Your task to perform on an android device: turn off location history Image 0: 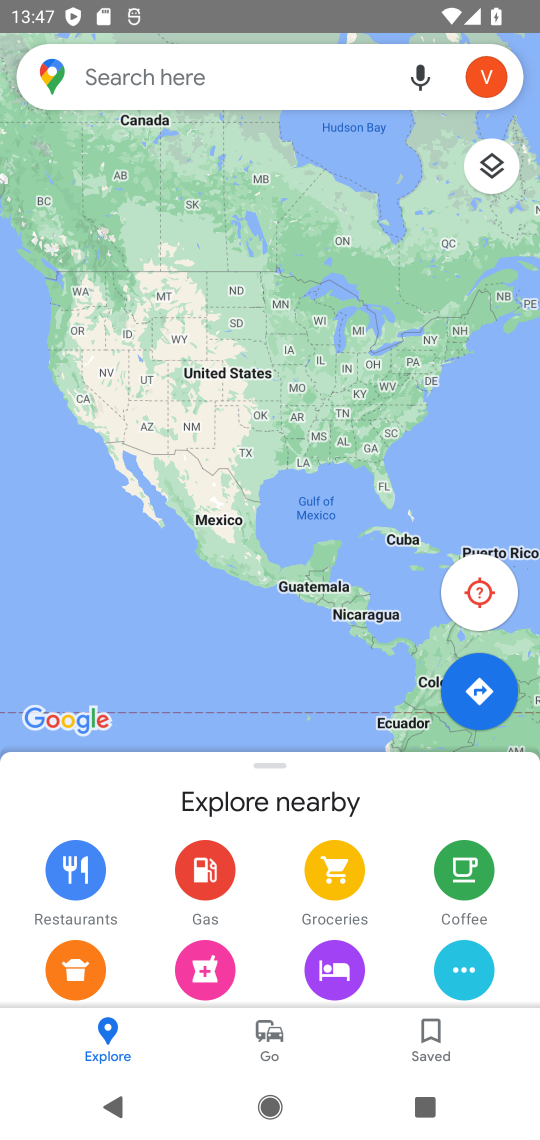
Step 0: press home button
Your task to perform on an android device: turn off location history Image 1: 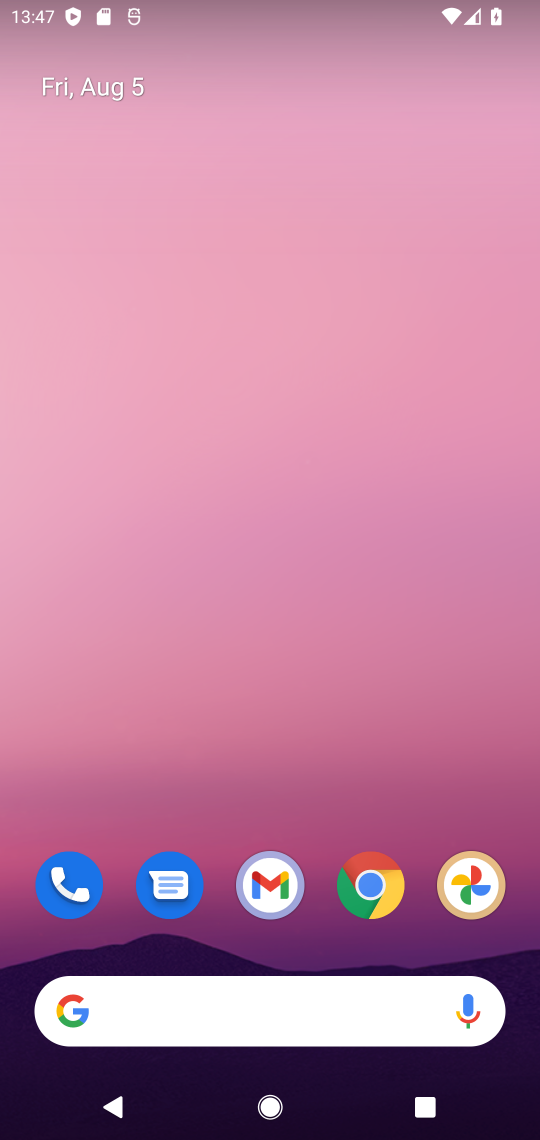
Step 1: drag from (267, 871) to (272, 253)
Your task to perform on an android device: turn off location history Image 2: 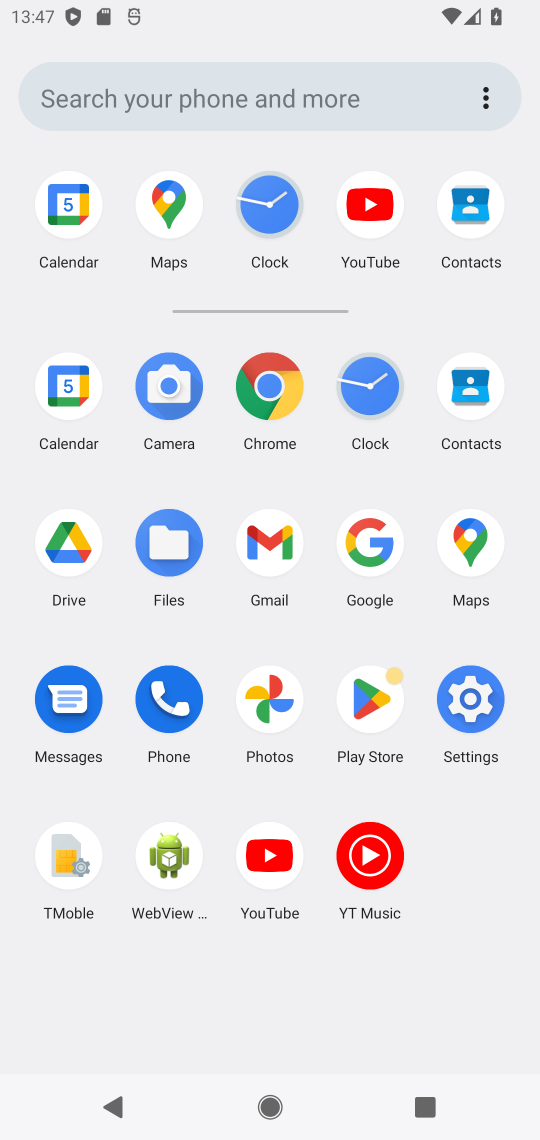
Step 2: click (459, 691)
Your task to perform on an android device: turn off location history Image 3: 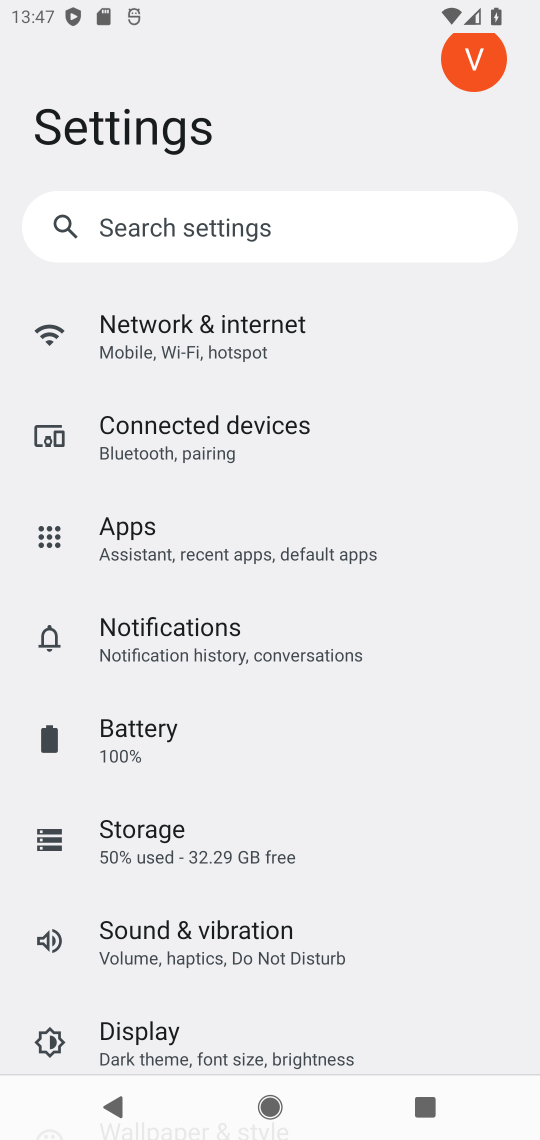
Step 3: drag from (196, 995) to (222, 583)
Your task to perform on an android device: turn off location history Image 4: 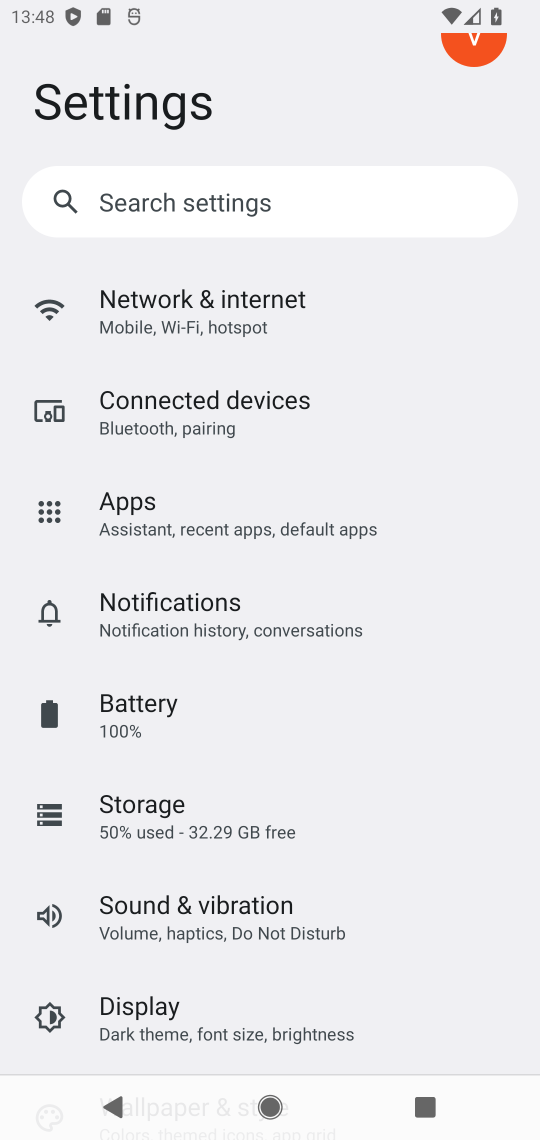
Step 4: drag from (233, 922) to (262, 514)
Your task to perform on an android device: turn off location history Image 5: 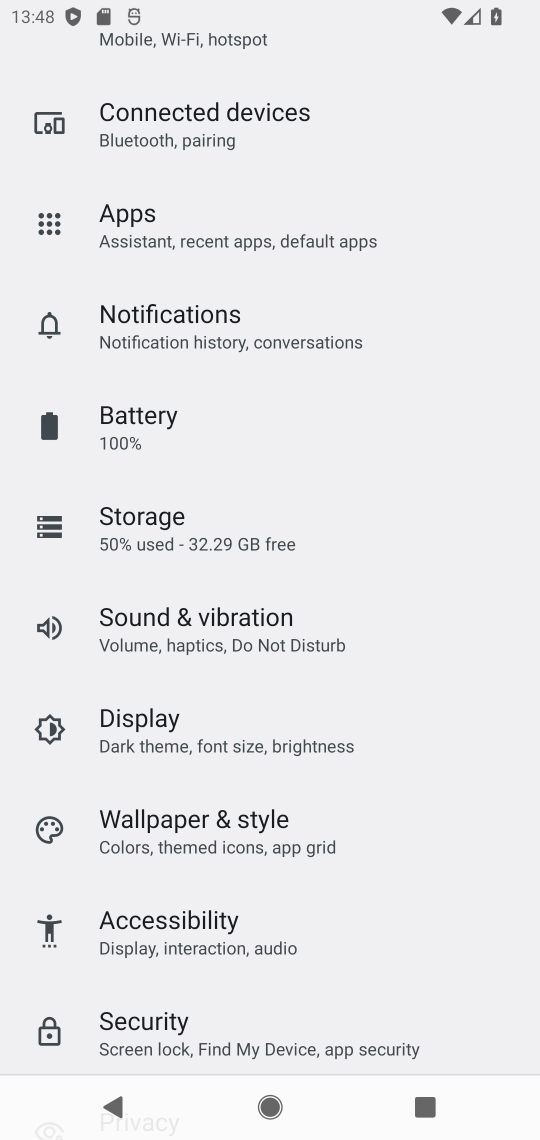
Step 5: drag from (239, 904) to (260, 609)
Your task to perform on an android device: turn off location history Image 6: 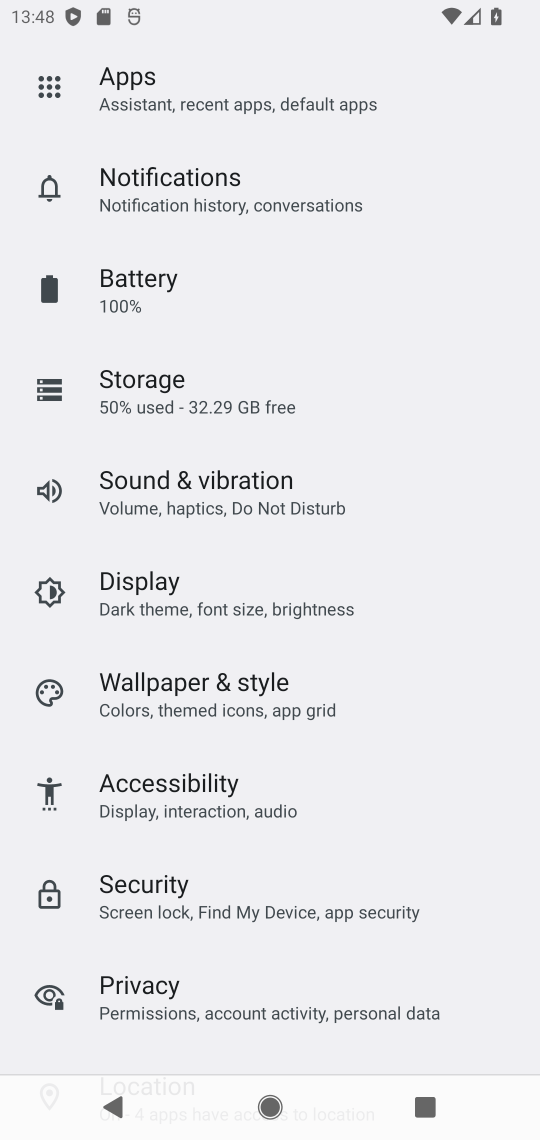
Step 6: drag from (229, 858) to (272, 298)
Your task to perform on an android device: turn off location history Image 7: 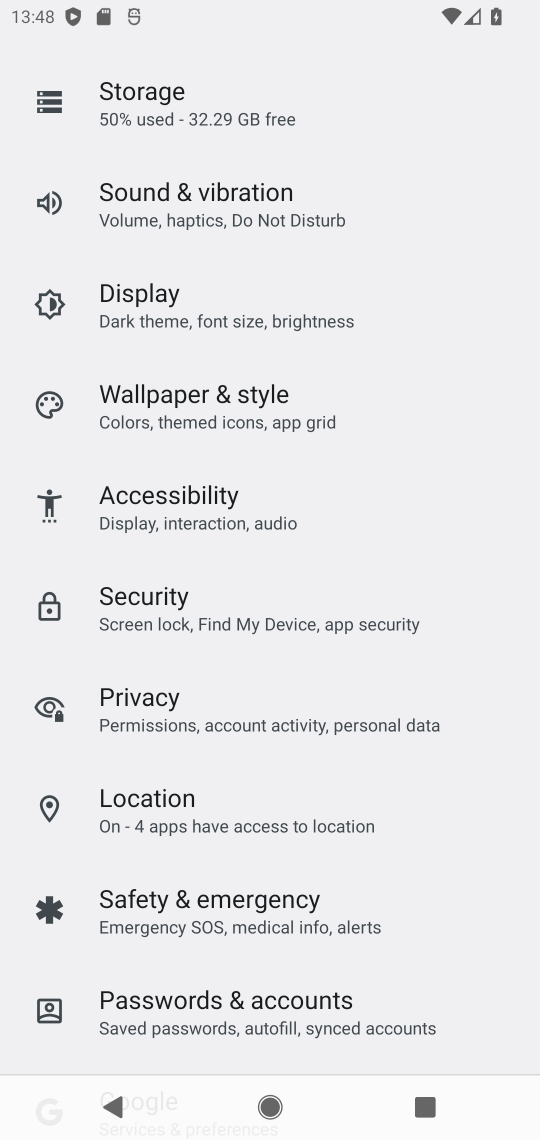
Step 7: click (153, 807)
Your task to perform on an android device: turn off location history Image 8: 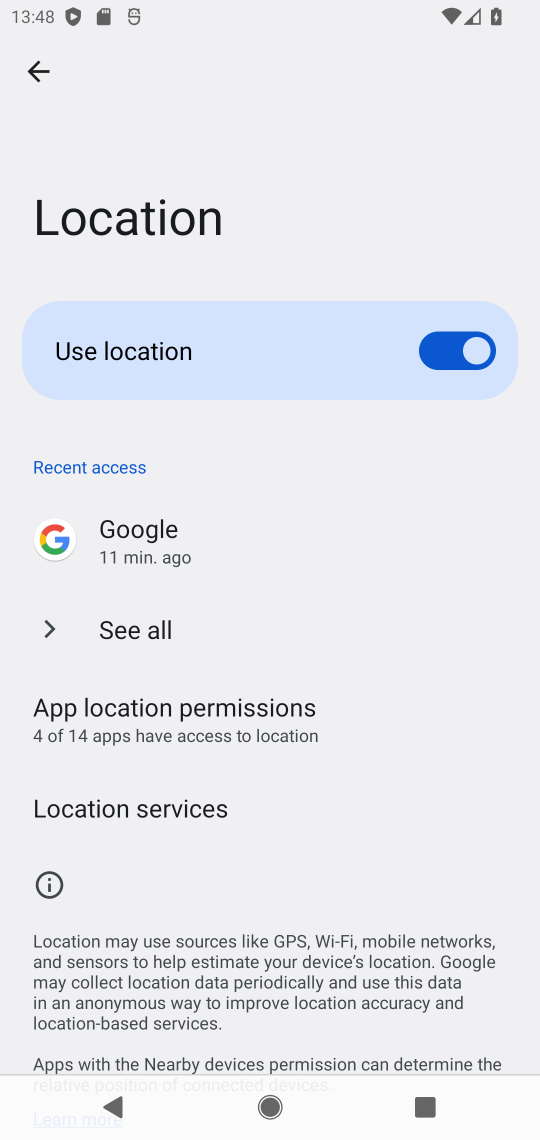
Step 8: click (153, 807)
Your task to perform on an android device: turn off location history Image 9: 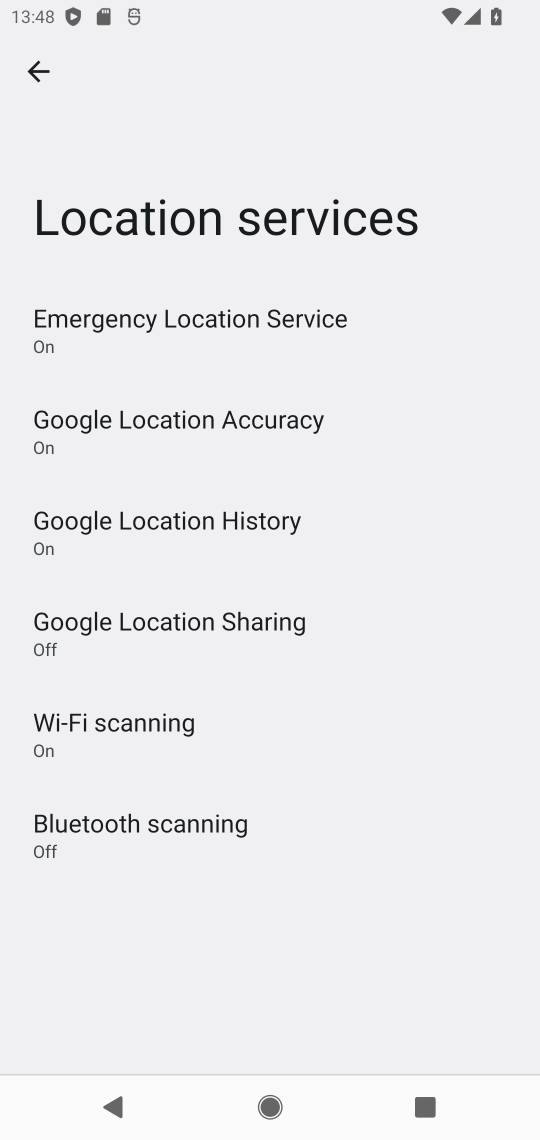
Step 9: click (227, 533)
Your task to perform on an android device: turn off location history Image 10: 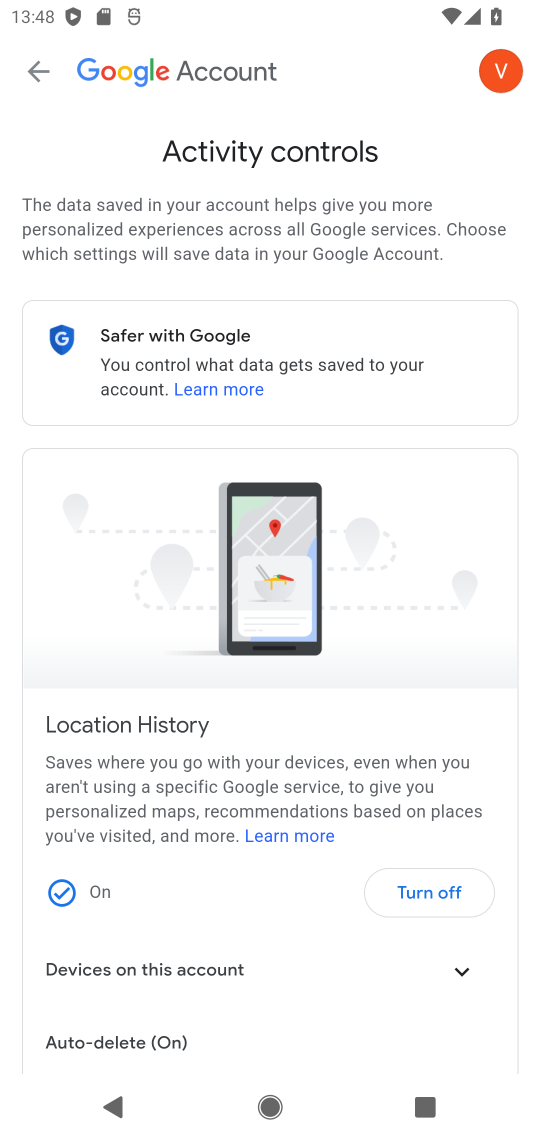
Step 10: click (431, 880)
Your task to perform on an android device: turn off location history Image 11: 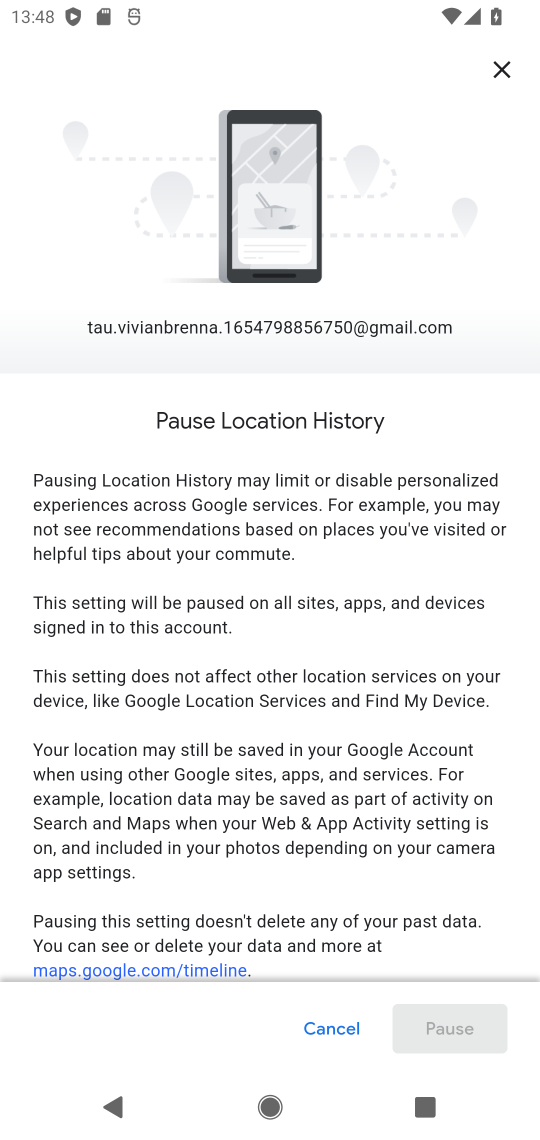
Step 11: drag from (351, 849) to (414, 369)
Your task to perform on an android device: turn off location history Image 12: 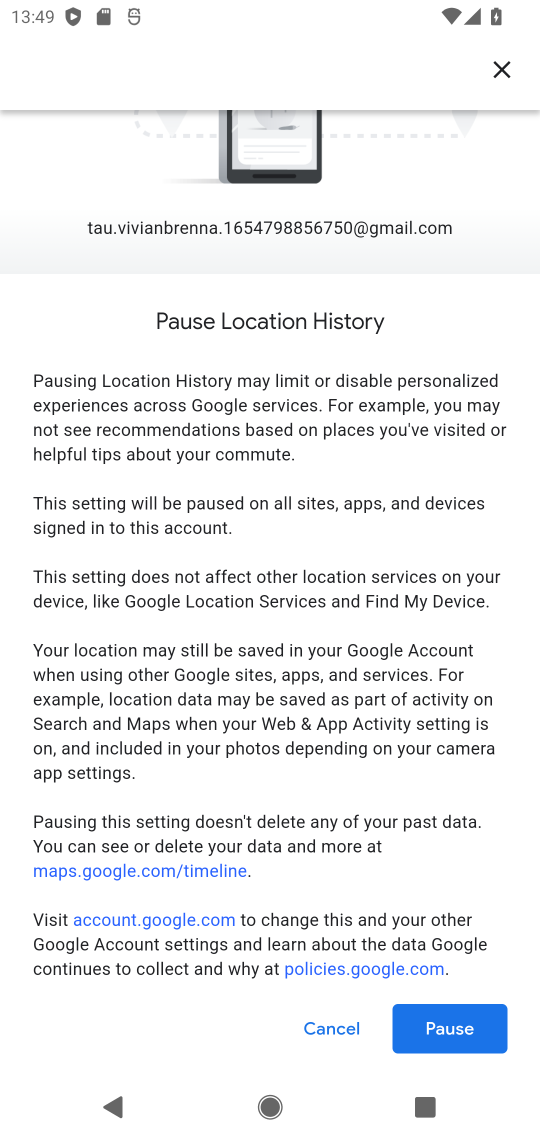
Step 12: click (471, 1036)
Your task to perform on an android device: turn off location history Image 13: 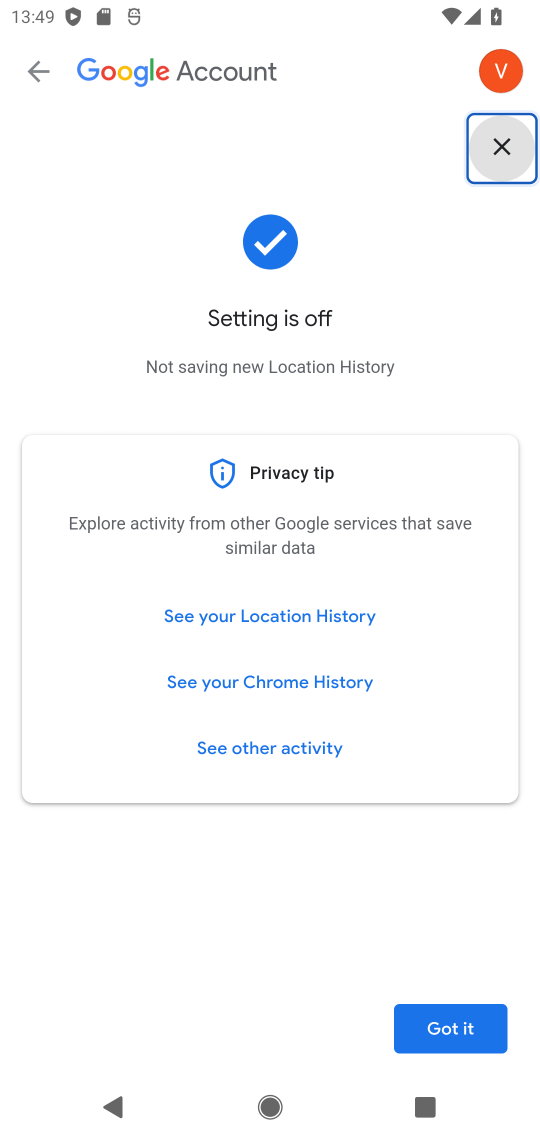
Step 13: click (471, 1036)
Your task to perform on an android device: turn off location history Image 14: 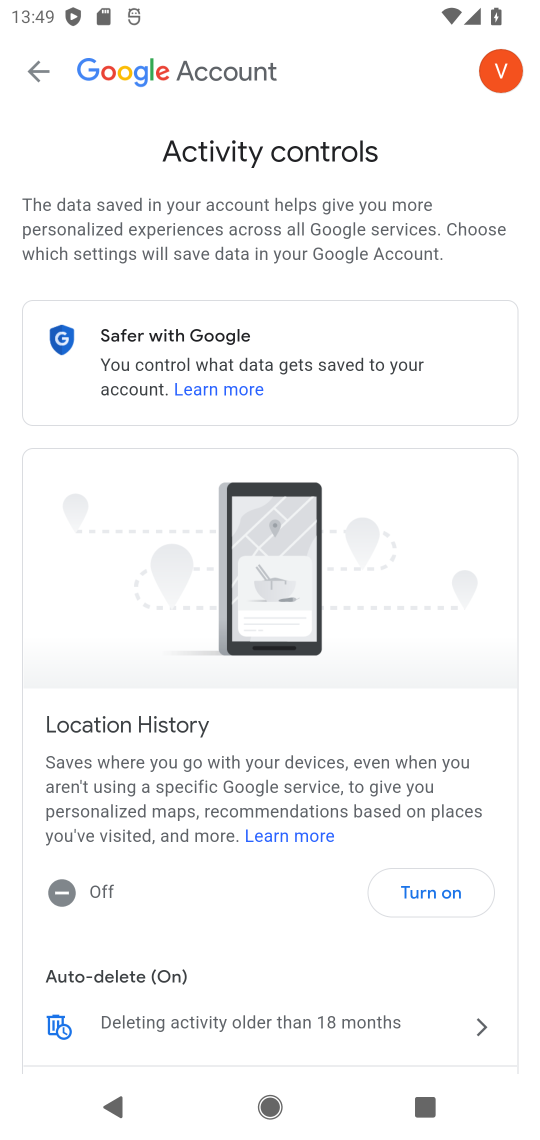
Step 14: task complete